Your task to perform on an android device: star an email in the gmail app Image 0: 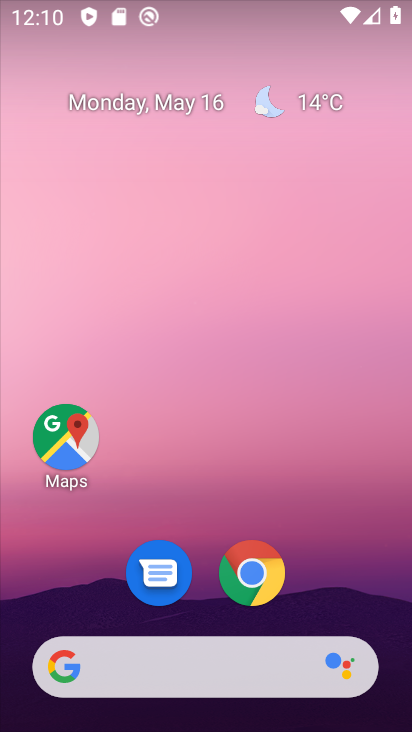
Step 0: drag from (135, 572) to (318, 118)
Your task to perform on an android device: star an email in the gmail app Image 1: 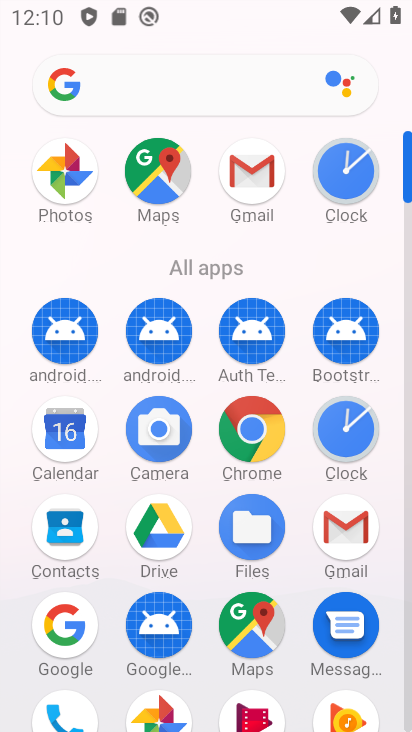
Step 1: drag from (189, 629) to (228, 339)
Your task to perform on an android device: star an email in the gmail app Image 2: 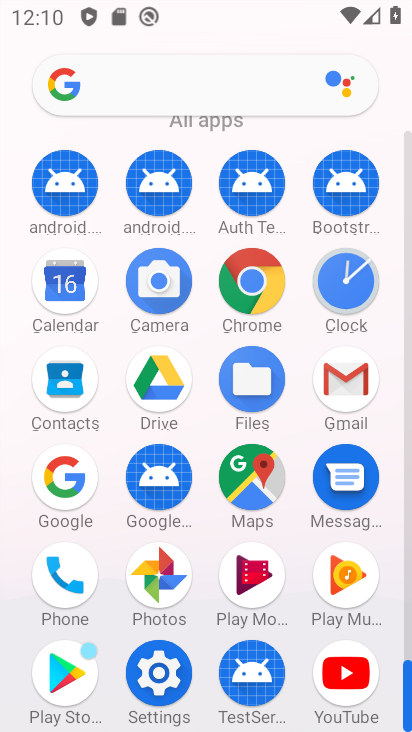
Step 2: click (355, 376)
Your task to perform on an android device: star an email in the gmail app Image 3: 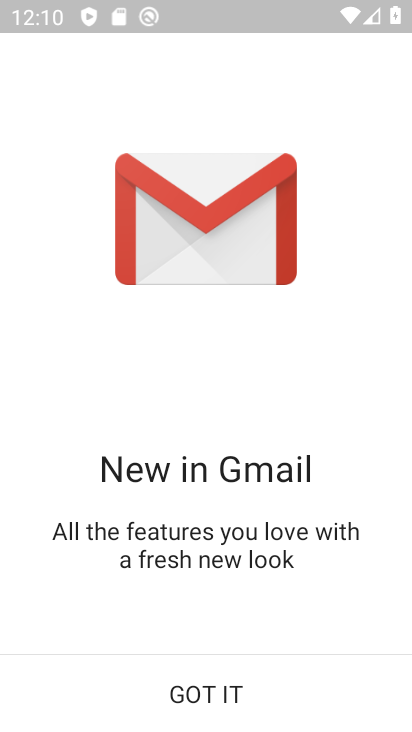
Step 3: click (194, 701)
Your task to perform on an android device: star an email in the gmail app Image 4: 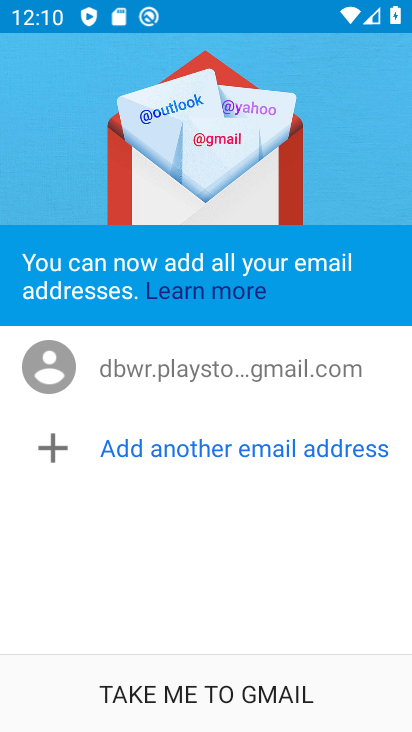
Step 4: click (231, 710)
Your task to perform on an android device: star an email in the gmail app Image 5: 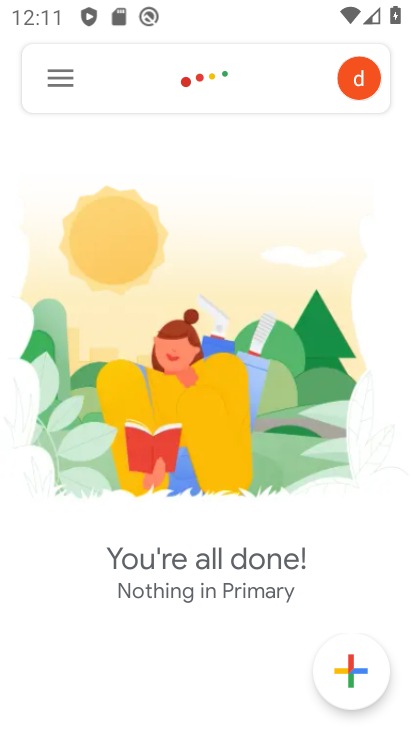
Step 5: click (73, 85)
Your task to perform on an android device: star an email in the gmail app Image 6: 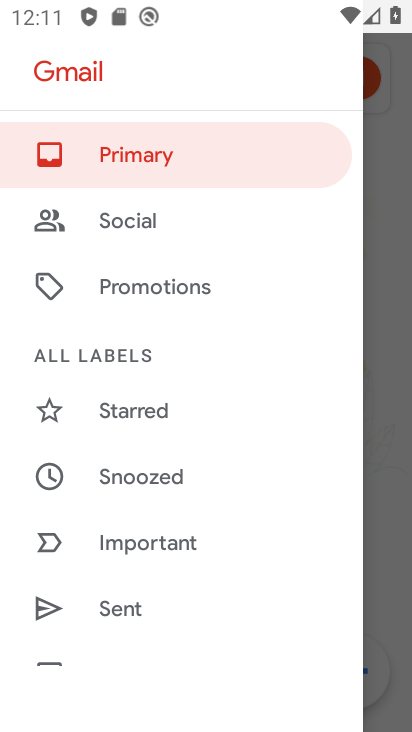
Step 6: drag from (128, 535) to (261, 261)
Your task to perform on an android device: star an email in the gmail app Image 7: 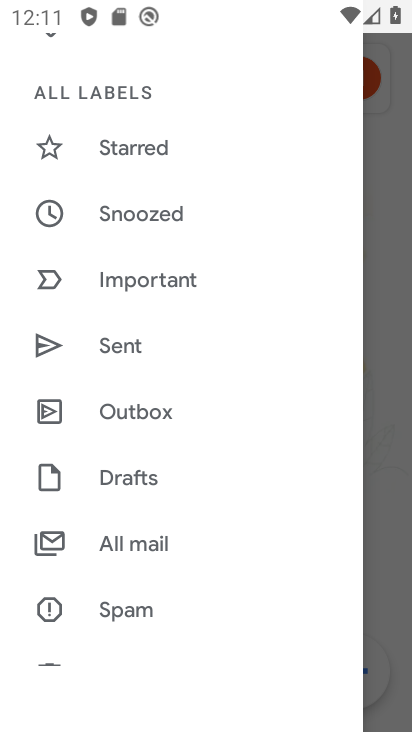
Step 7: click (172, 552)
Your task to perform on an android device: star an email in the gmail app Image 8: 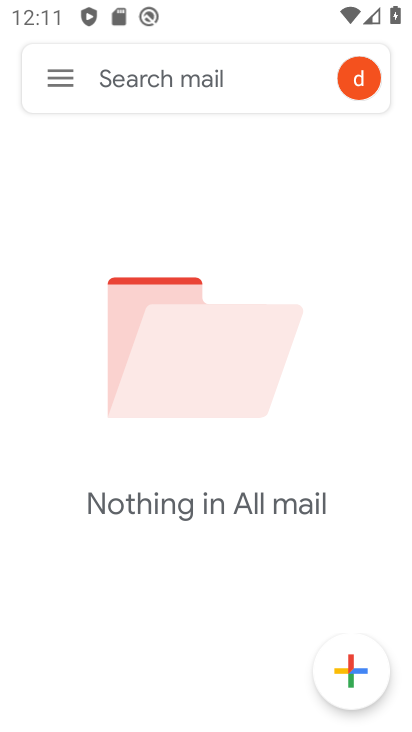
Step 8: task complete